Your task to perform on an android device: turn vacation reply on in the gmail app Image 0: 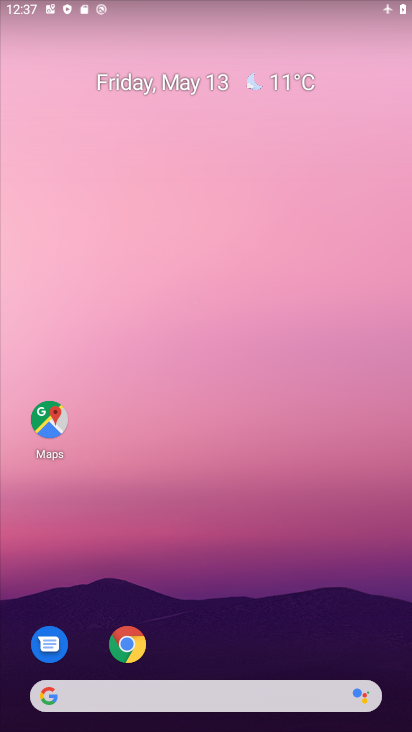
Step 0: drag from (215, 726) to (174, 46)
Your task to perform on an android device: turn vacation reply on in the gmail app Image 1: 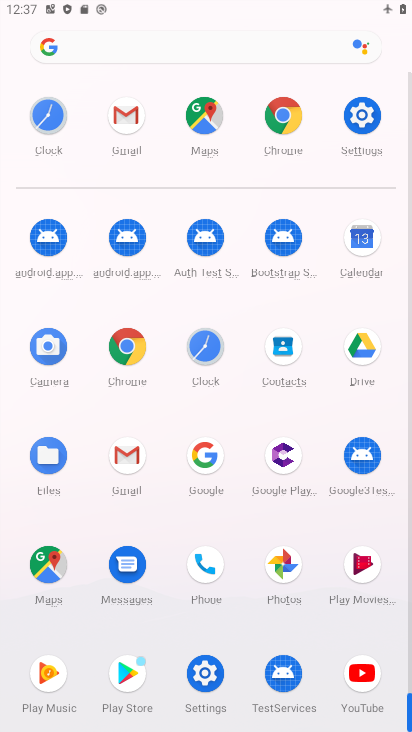
Step 1: click (126, 117)
Your task to perform on an android device: turn vacation reply on in the gmail app Image 2: 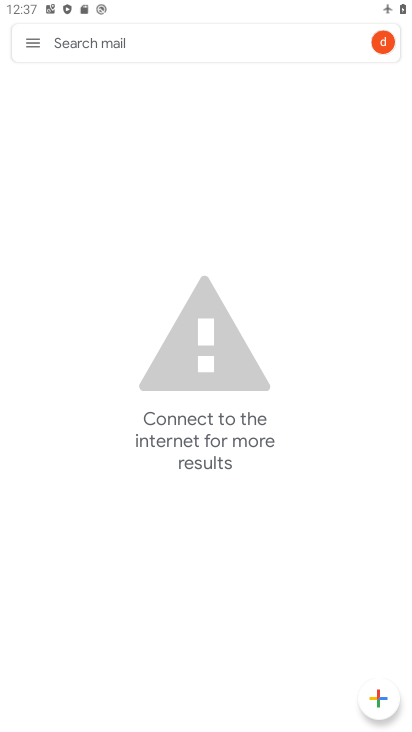
Step 2: click (31, 45)
Your task to perform on an android device: turn vacation reply on in the gmail app Image 3: 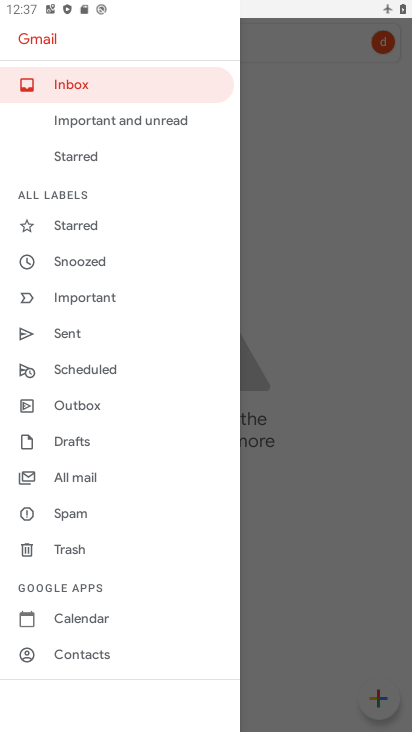
Step 3: drag from (92, 621) to (74, 332)
Your task to perform on an android device: turn vacation reply on in the gmail app Image 4: 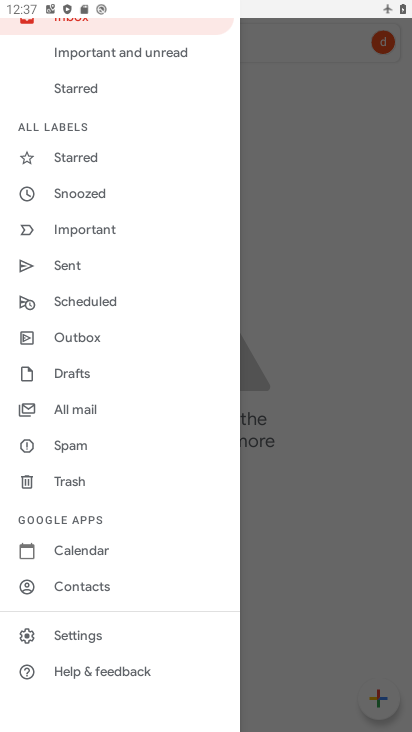
Step 4: click (85, 630)
Your task to perform on an android device: turn vacation reply on in the gmail app Image 5: 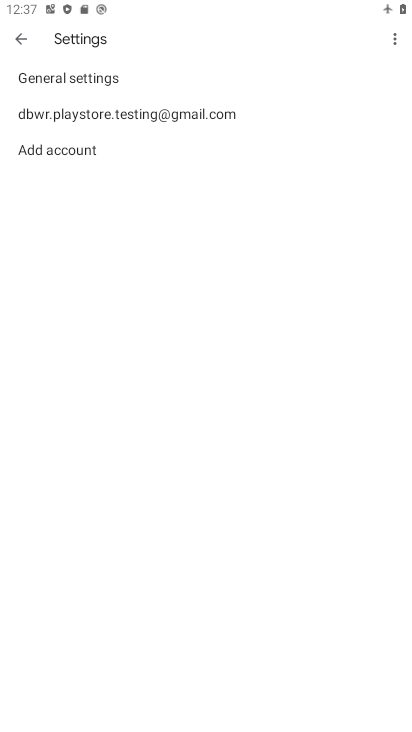
Step 5: click (117, 112)
Your task to perform on an android device: turn vacation reply on in the gmail app Image 6: 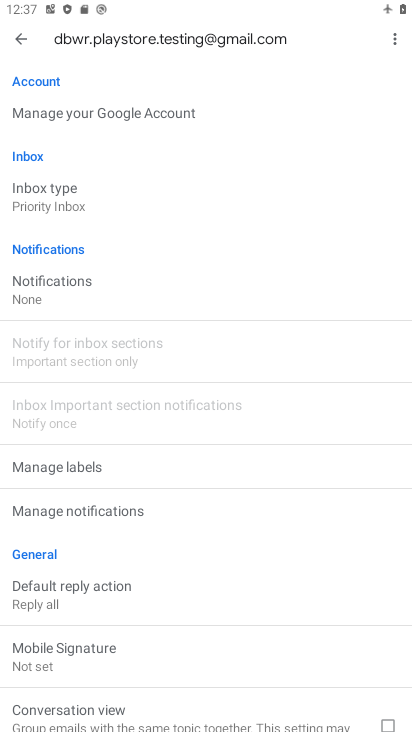
Step 6: drag from (87, 583) to (93, 300)
Your task to perform on an android device: turn vacation reply on in the gmail app Image 7: 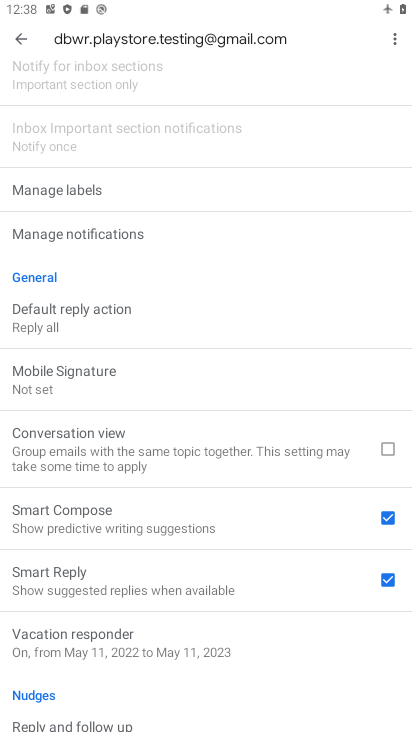
Step 7: click (90, 630)
Your task to perform on an android device: turn vacation reply on in the gmail app Image 8: 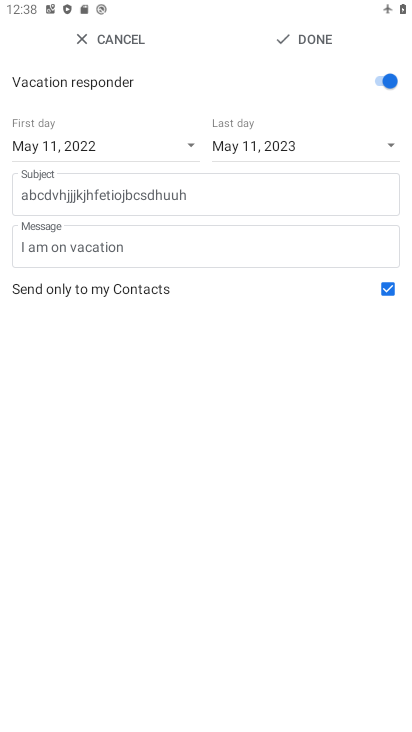
Step 8: task complete